Your task to perform on an android device: turn off translation in the chrome app Image 0: 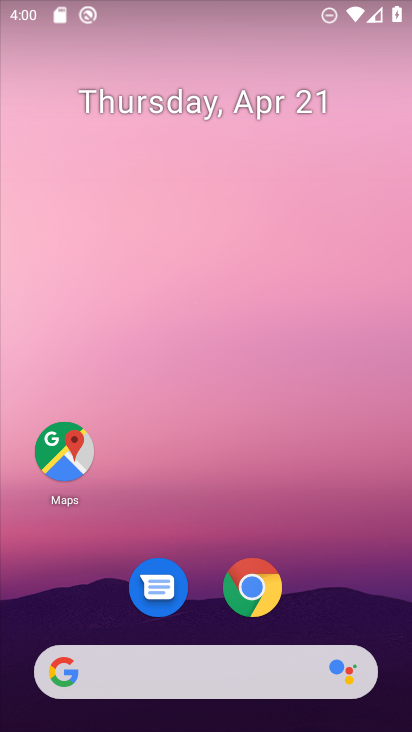
Step 0: click (253, 588)
Your task to perform on an android device: turn off translation in the chrome app Image 1: 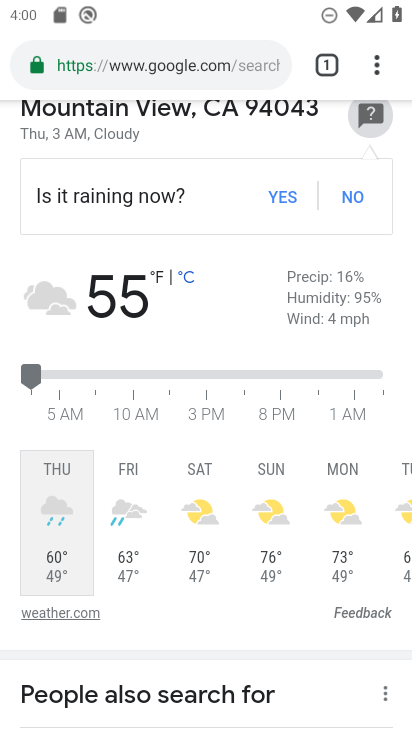
Step 1: click (378, 61)
Your task to perform on an android device: turn off translation in the chrome app Image 2: 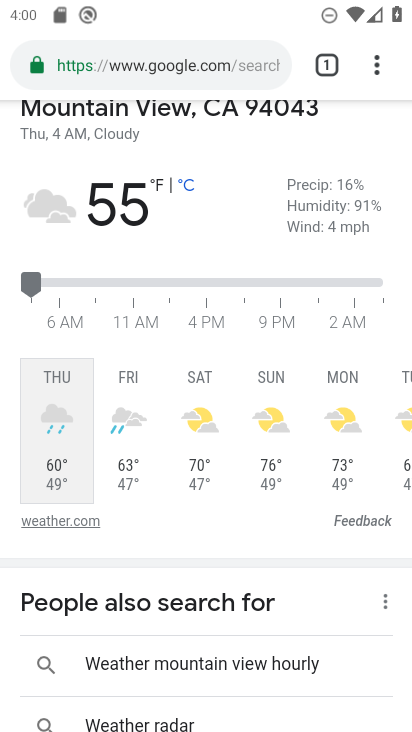
Step 2: click (373, 62)
Your task to perform on an android device: turn off translation in the chrome app Image 3: 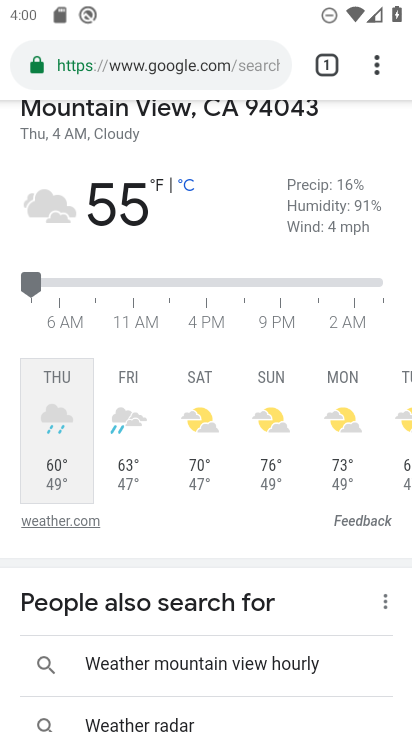
Step 3: click (373, 62)
Your task to perform on an android device: turn off translation in the chrome app Image 4: 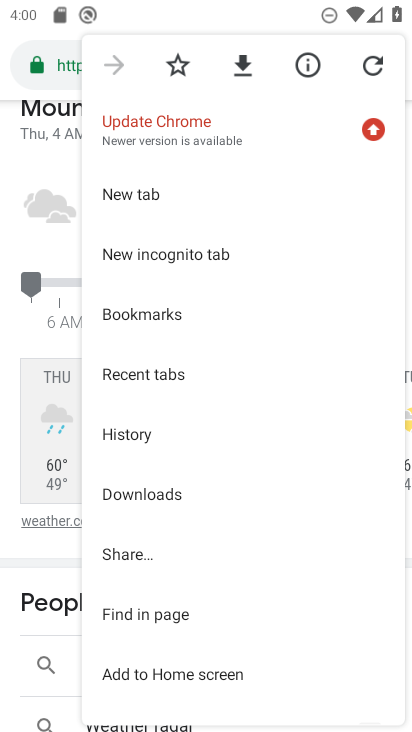
Step 4: drag from (289, 586) to (325, 175)
Your task to perform on an android device: turn off translation in the chrome app Image 5: 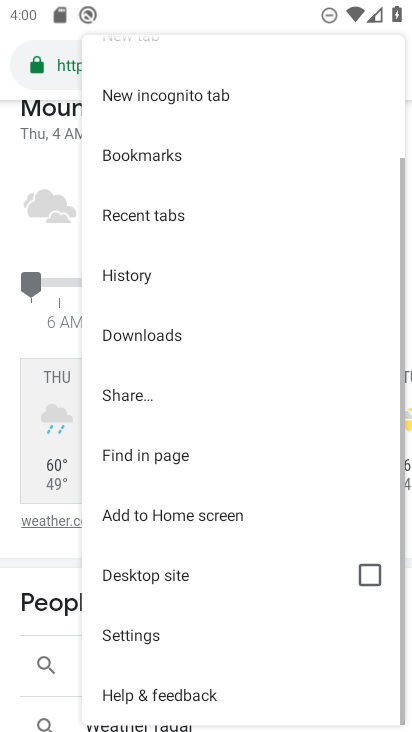
Step 5: click (129, 635)
Your task to perform on an android device: turn off translation in the chrome app Image 6: 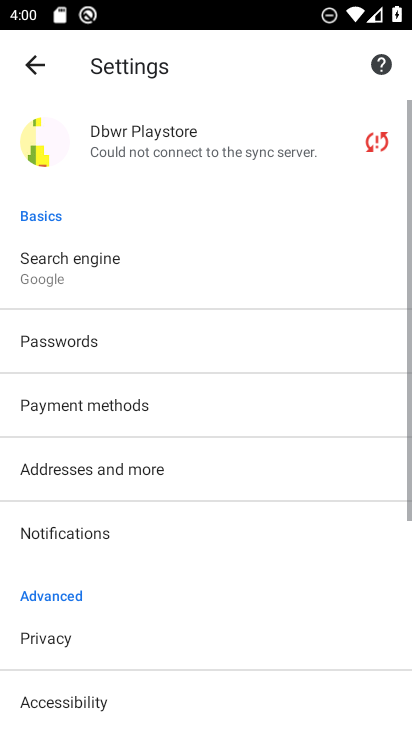
Step 6: drag from (129, 634) to (208, 195)
Your task to perform on an android device: turn off translation in the chrome app Image 7: 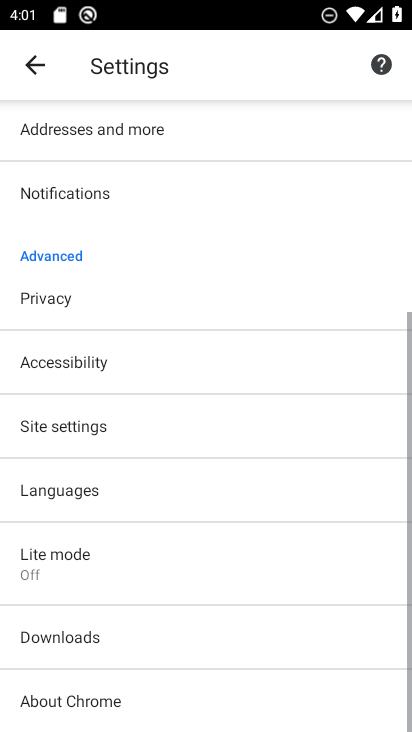
Step 7: drag from (131, 451) to (184, 340)
Your task to perform on an android device: turn off translation in the chrome app Image 8: 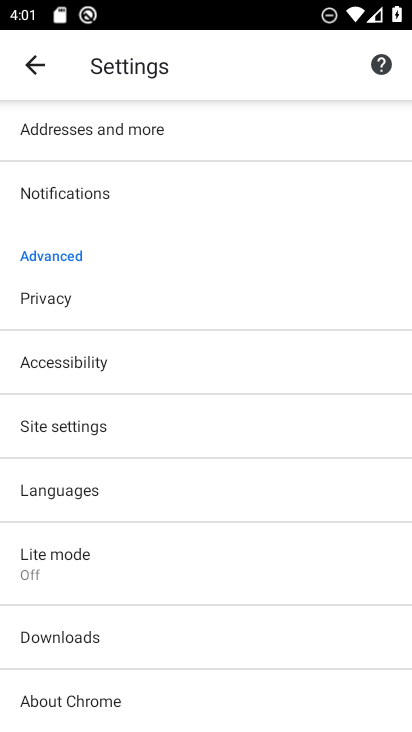
Step 8: click (77, 496)
Your task to perform on an android device: turn off translation in the chrome app Image 9: 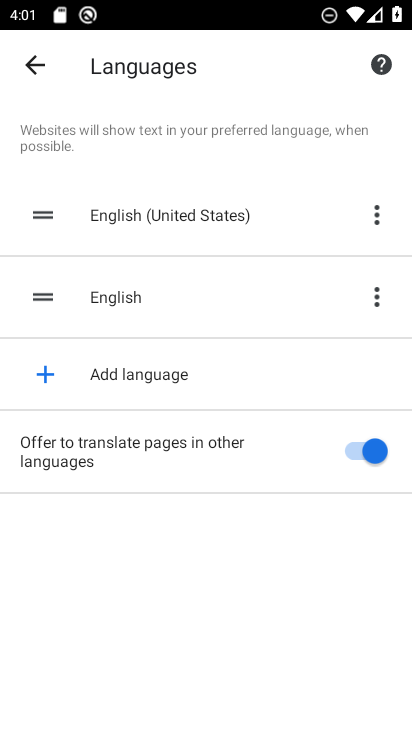
Step 9: click (363, 454)
Your task to perform on an android device: turn off translation in the chrome app Image 10: 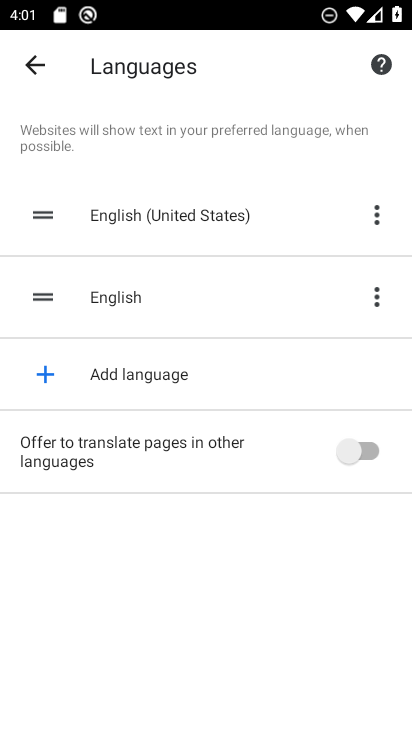
Step 10: task complete